Your task to perform on an android device: Open wifi settings Image 0: 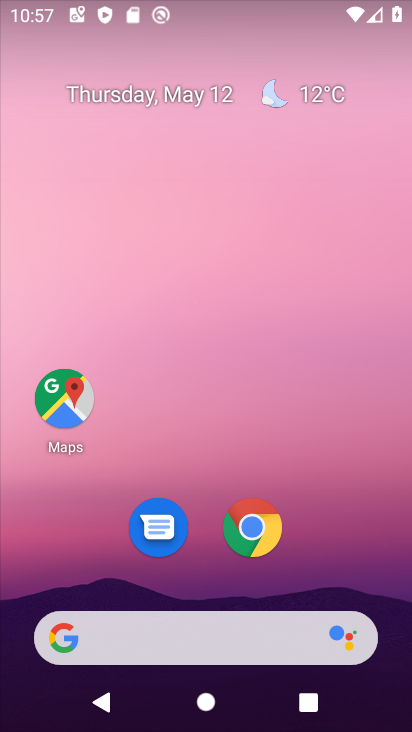
Step 0: drag from (352, 545) to (369, 123)
Your task to perform on an android device: Open wifi settings Image 1: 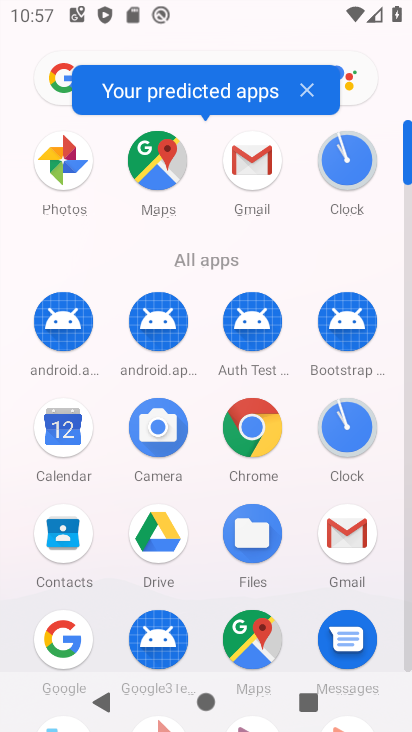
Step 1: drag from (240, 538) to (296, 192)
Your task to perform on an android device: Open wifi settings Image 2: 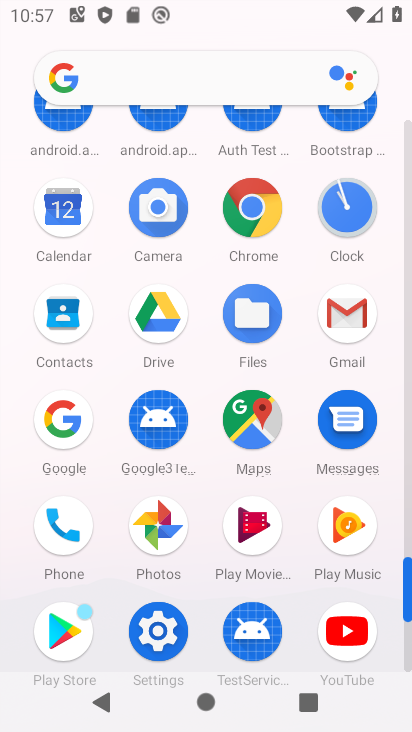
Step 2: click (170, 625)
Your task to perform on an android device: Open wifi settings Image 3: 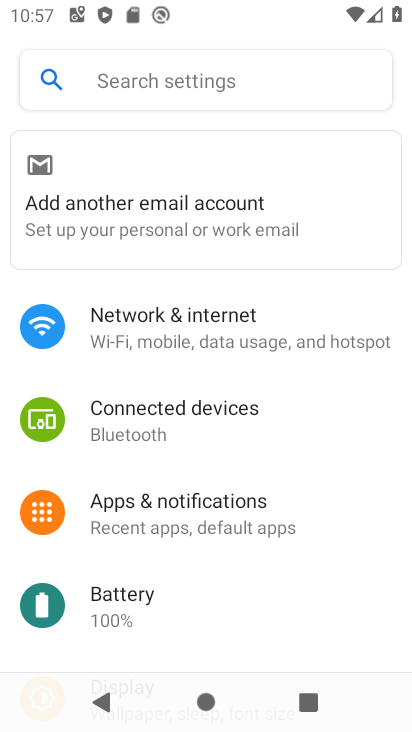
Step 3: click (242, 328)
Your task to perform on an android device: Open wifi settings Image 4: 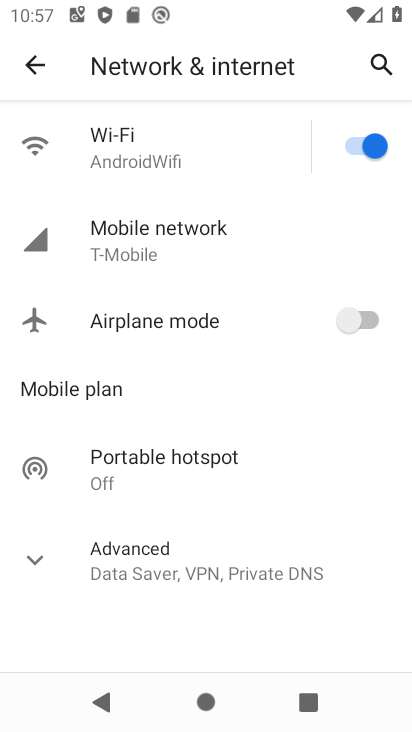
Step 4: click (129, 150)
Your task to perform on an android device: Open wifi settings Image 5: 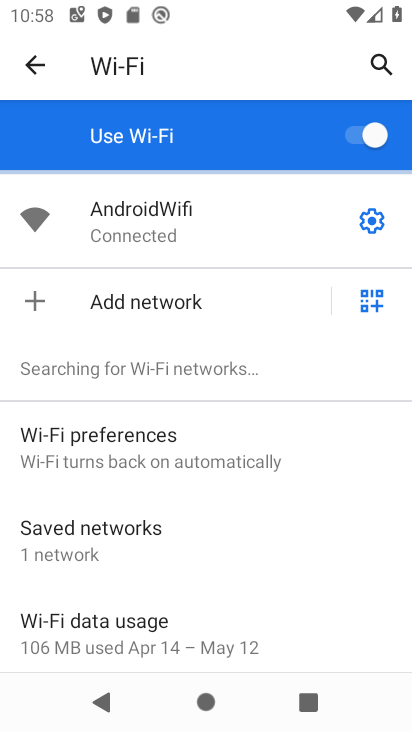
Step 5: task complete